Your task to perform on an android device: change your default location settings in chrome Image 0: 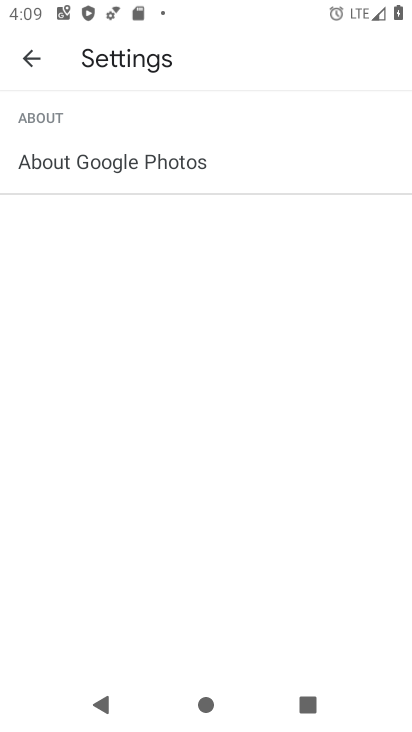
Step 0: press back button
Your task to perform on an android device: change your default location settings in chrome Image 1: 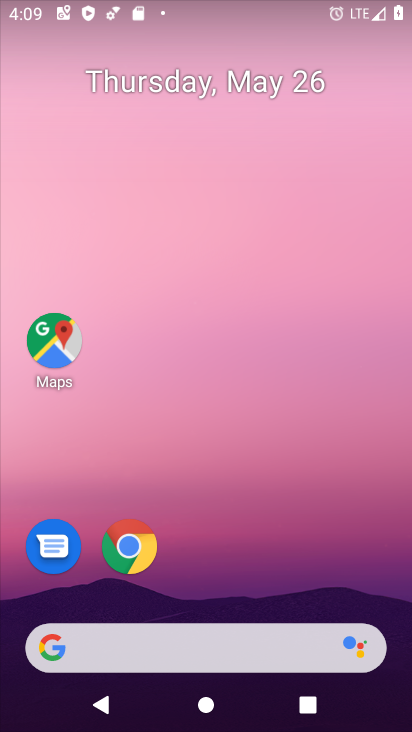
Step 1: drag from (212, 592) to (230, 35)
Your task to perform on an android device: change your default location settings in chrome Image 2: 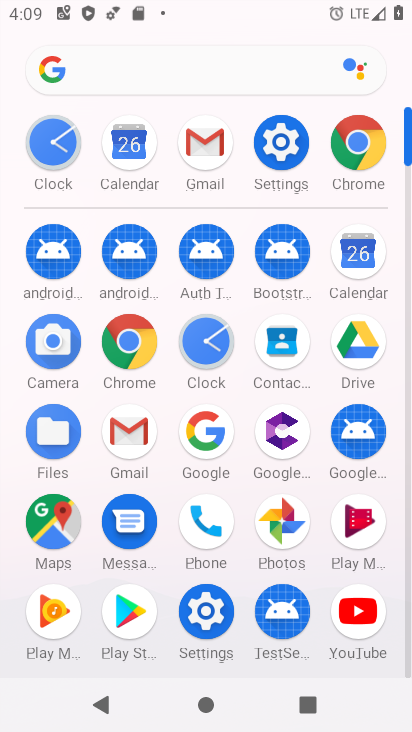
Step 2: click (360, 147)
Your task to perform on an android device: change your default location settings in chrome Image 3: 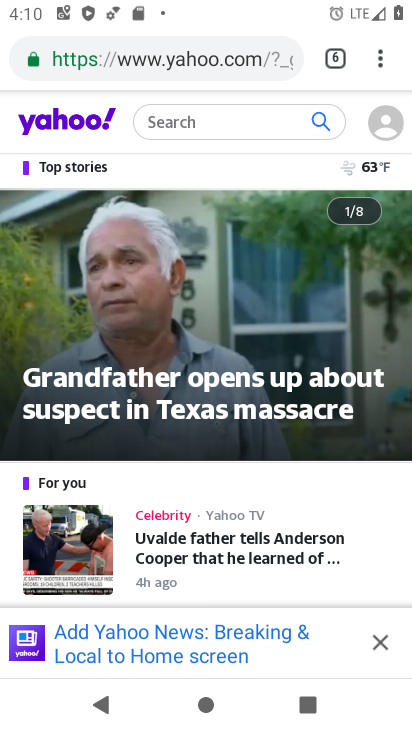
Step 3: drag from (382, 53) to (179, 566)
Your task to perform on an android device: change your default location settings in chrome Image 4: 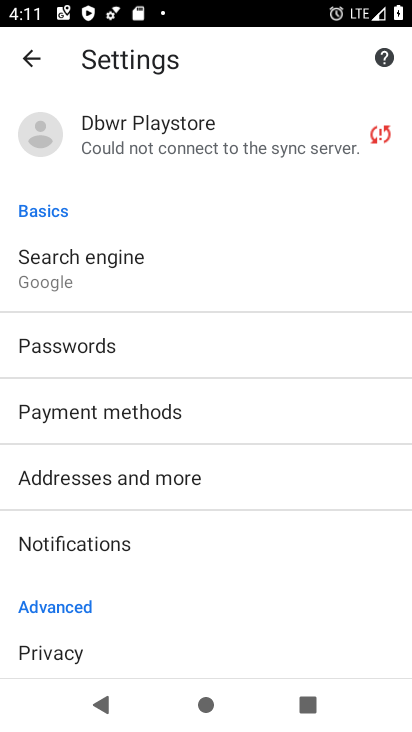
Step 4: drag from (141, 628) to (236, 160)
Your task to perform on an android device: change your default location settings in chrome Image 5: 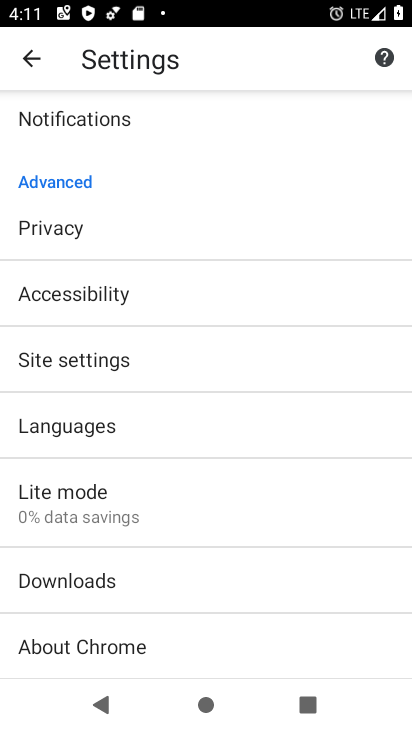
Step 5: click (79, 358)
Your task to perform on an android device: change your default location settings in chrome Image 6: 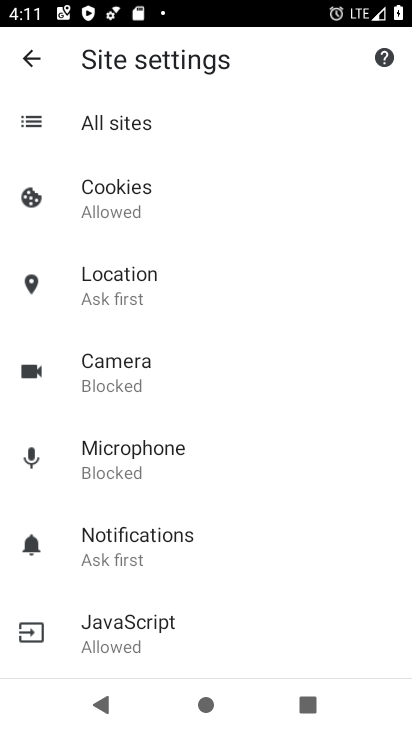
Step 6: click (175, 284)
Your task to perform on an android device: change your default location settings in chrome Image 7: 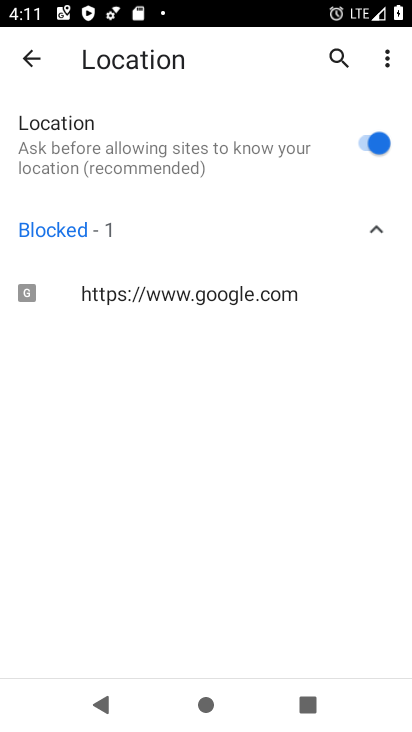
Step 7: click (247, 298)
Your task to perform on an android device: change your default location settings in chrome Image 8: 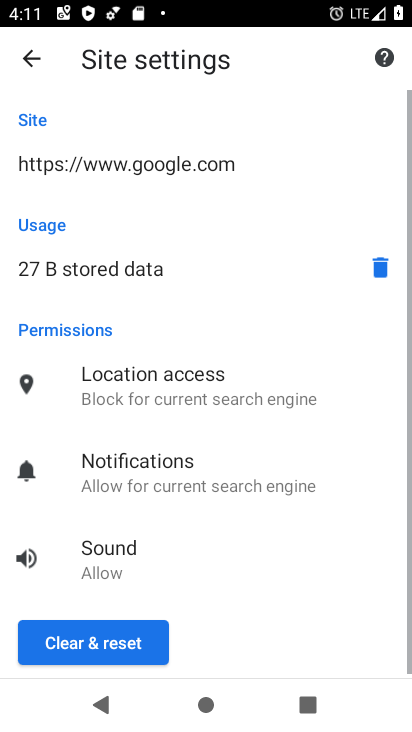
Step 8: click (157, 374)
Your task to perform on an android device: change your default location settings in chrome Image 9: 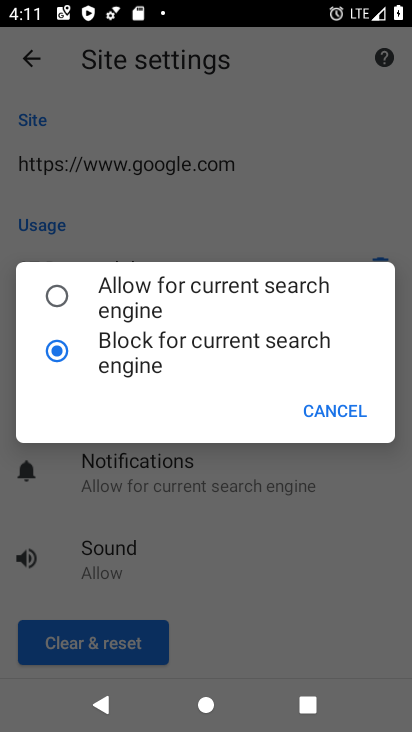
Step 9: click (203, 297)
Your task to perform on an android device: change your default location settings in chrome Image 10: 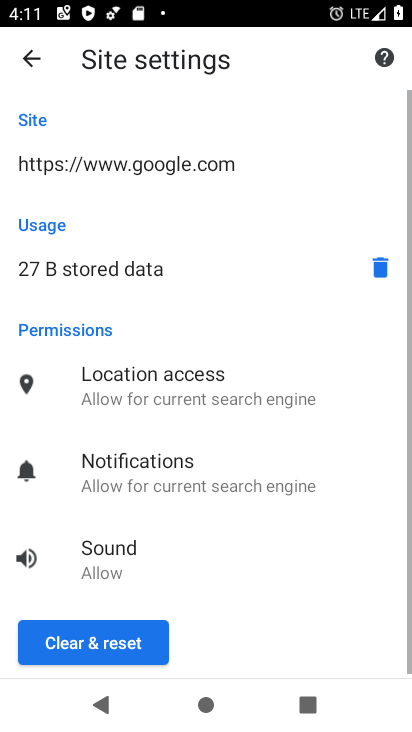
Step 10: task complete